Your task to perform on an android device: open a bookmark in the chrome app Image 0: 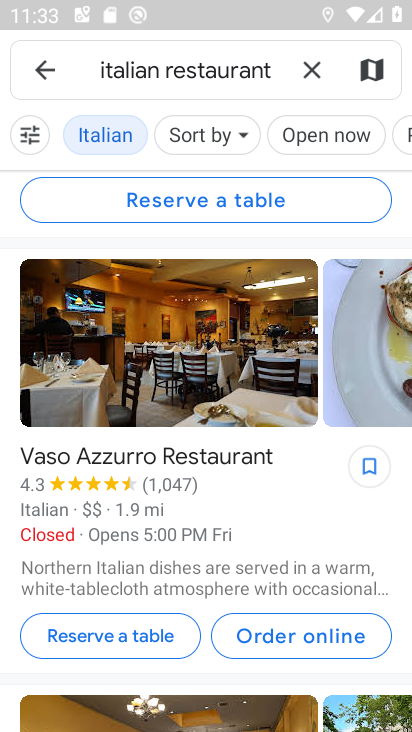
Step 0: press home button
Your task to perform on an android device: open a bookmark in the chrome app Image 1: 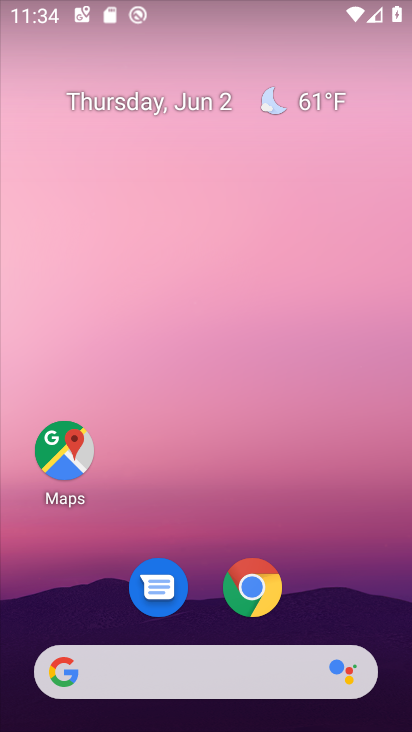
Step 1: click (254, 581)
Your task to perform on an android device: open a bookmark in the chrome app Image 2: 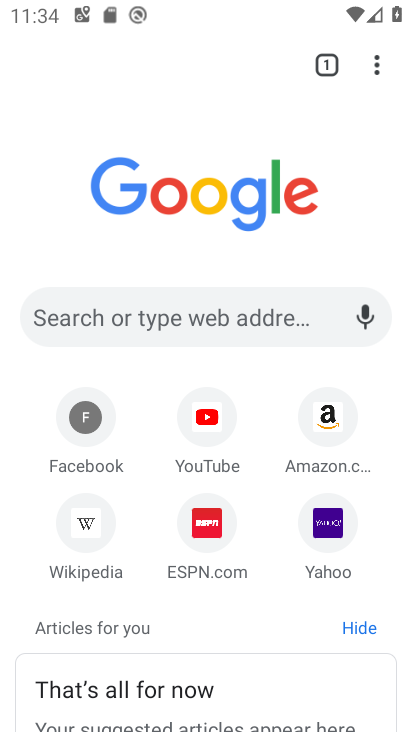
Step 2: click (371, 60)
Your task to perform on an android device: open a bookmark in the chrome app Image 3: 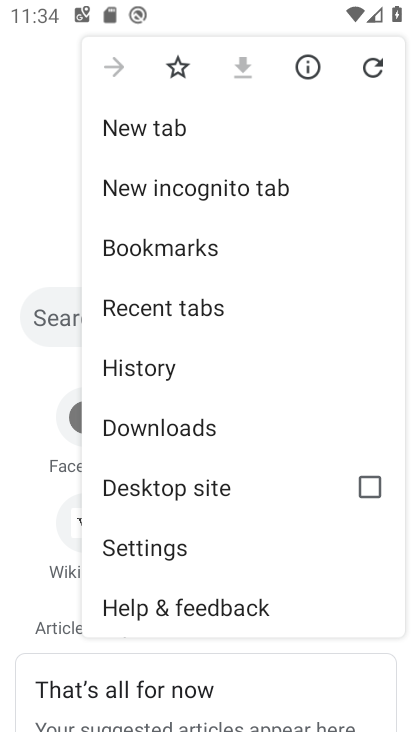
Step 3: click (212, 239)
Your task to perform on an android device: open a bookmark in the chrome app Image 4: 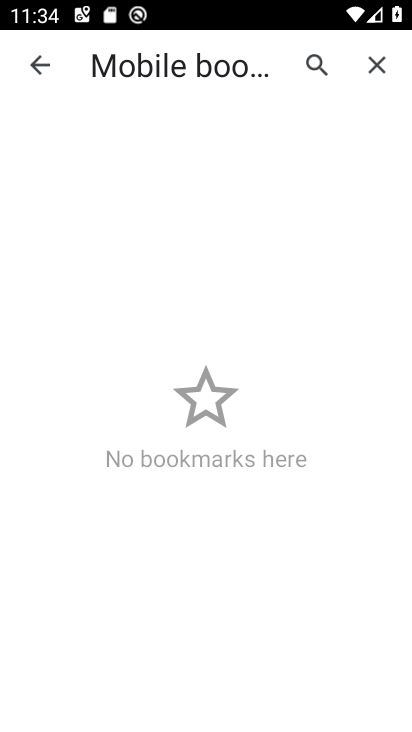
Step 4: task complete